Your task to perform on an android device: turn vacation reply on in the gmail app Image 0: 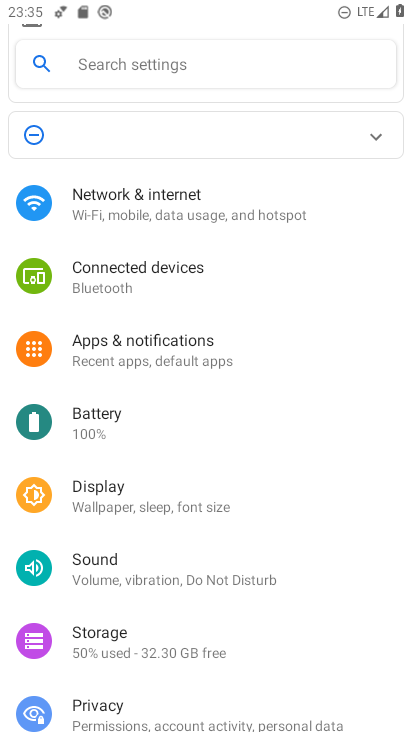
Step 0: press home button
Your task to perform on an android device: turn vacation reply on in the gmail app Image 1: 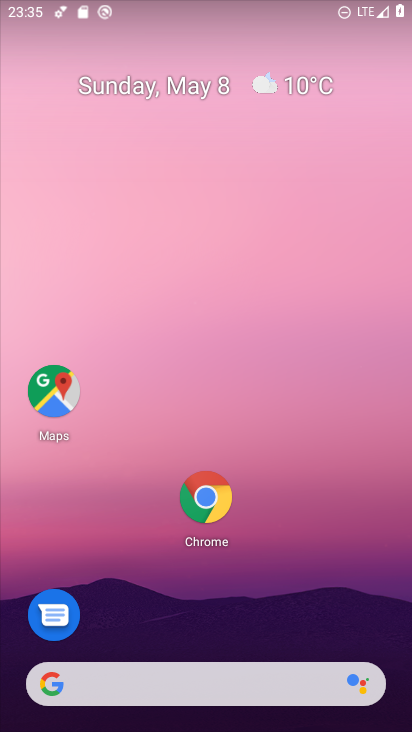
Step 1: click (330, 0)
Your task to perform on an android device: turn vacation reply on in the gmail app Image 2: 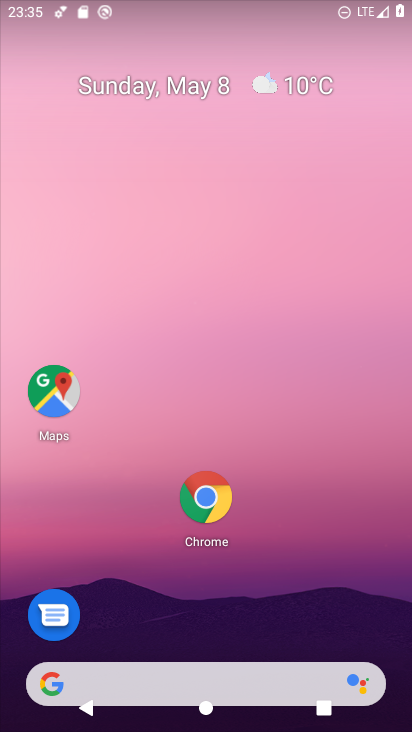
Step 2: drag from (335, 485) to (277, 38)
Your task to perform on an android device: turn vacation reply on in the gmail app Image 3: 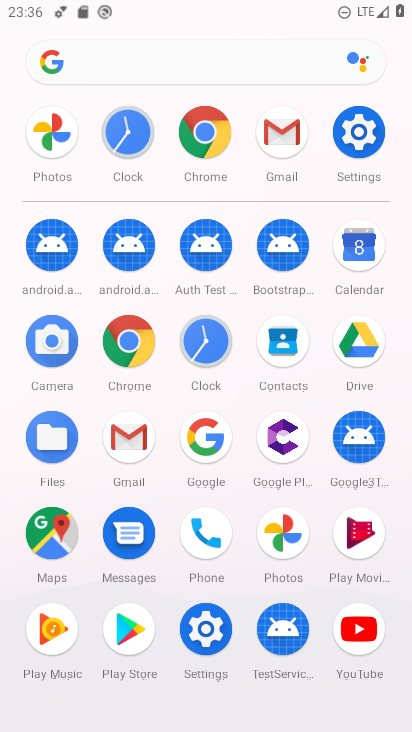
Step 3: click (291, 135)
Your task to perform on an android device: turn vacation reply on in the gmail app Image 4: 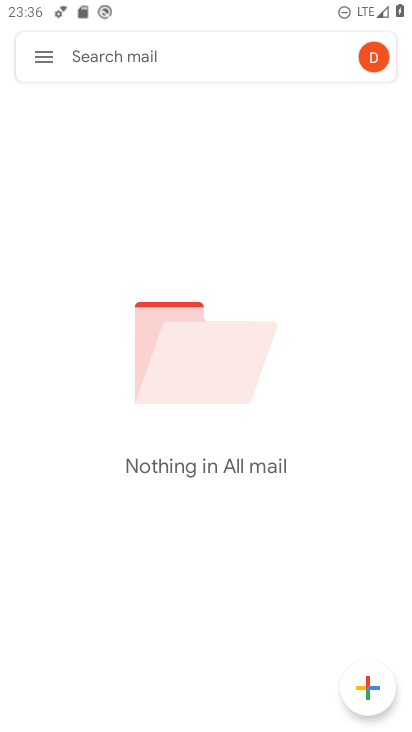
Step 4: press home button
Your task to perform on an android device: turn vacation reply on in the gmail app Image 5: 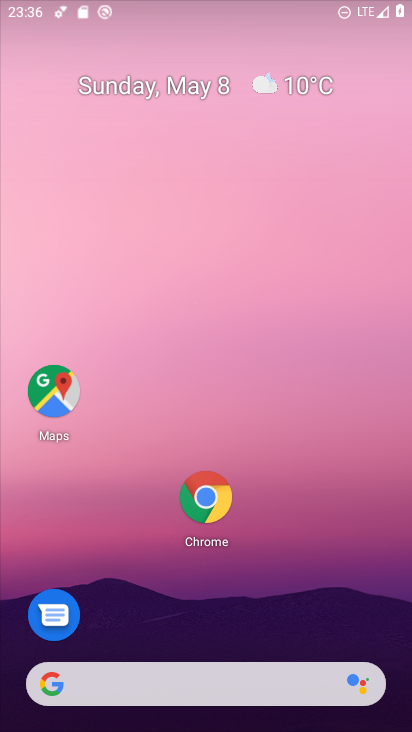
Step 5: drag from (289, 579) to (298, 50)
Your task to perform on an android device: turn vacation reply on in the gmail app Image 6: 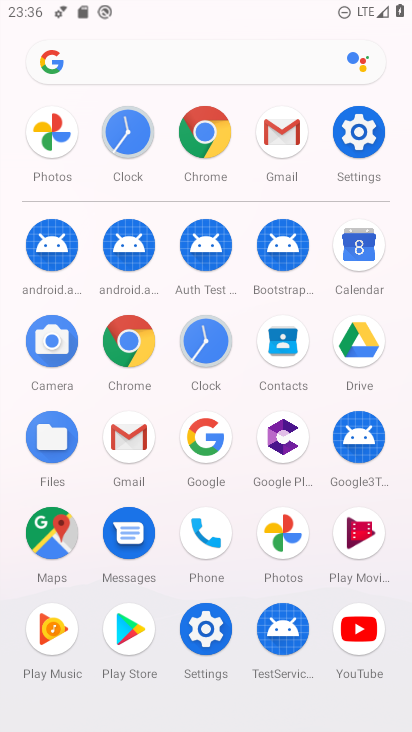
Step 6: click (283, 138)
Your task to perform on an android device: turn vacation reply on in the gmail app Image 7: 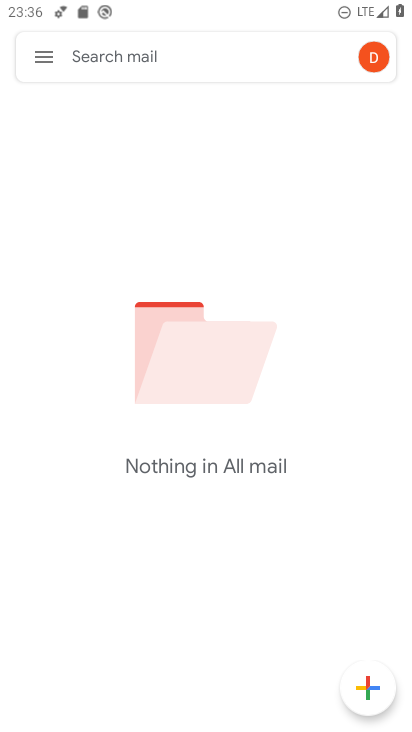
Step 7: click (45, 52)
Your task to perform on an android device: turn vacation reply on in the gmail app Image 8: 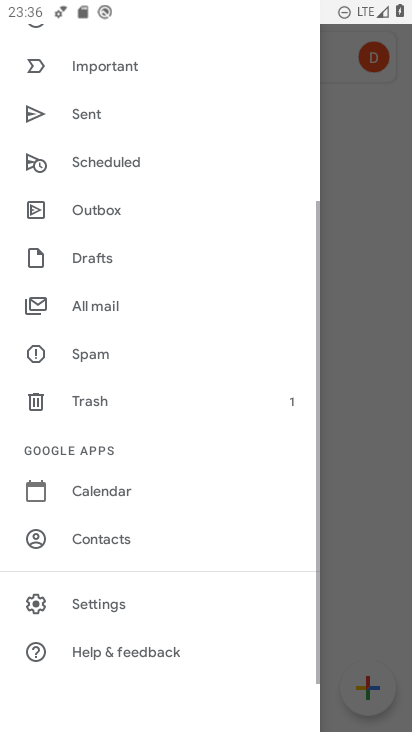
Step 8: click (134, 599)
Your task to perform on an android device: turn vacation reply on in the gmail app Image 9: 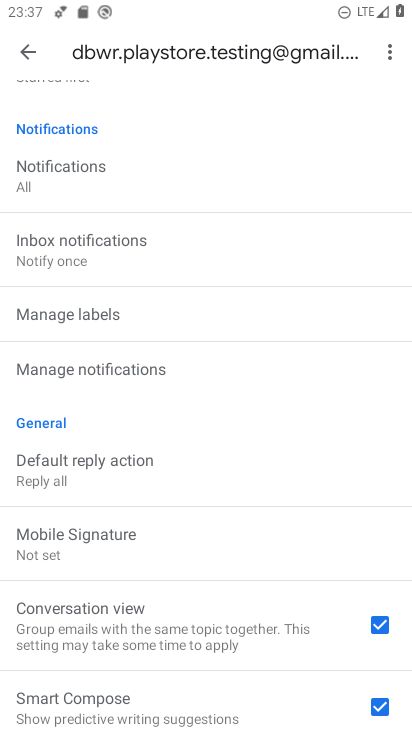
Step 9: drag from (178, 620) to (209, 76)
Your task to perform on an android device: turn vacation reply on in the gmail app Image 10: 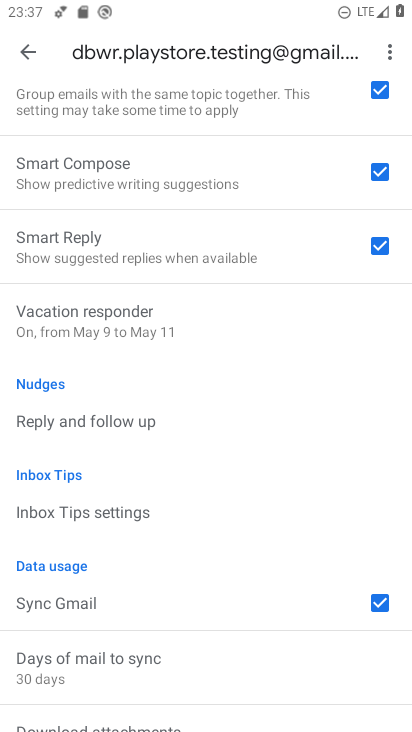
Step 10: click (212, 308)
Your task to perform on an android device: turn vacation reply on in the gmail app Image 11: 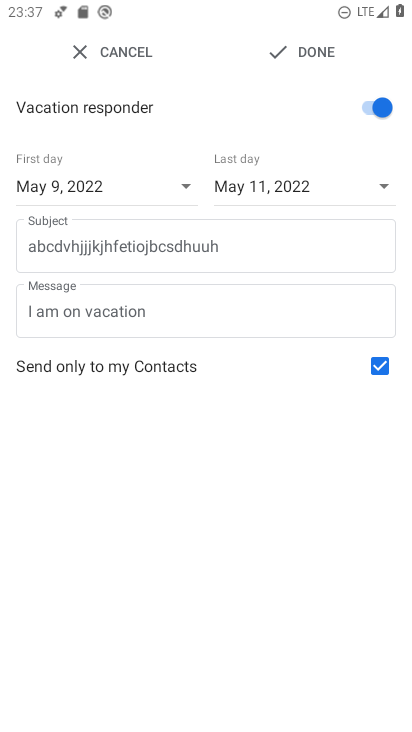
Step 11: task complete